Your task to perform on an android device: Go to Google maps Image 0: 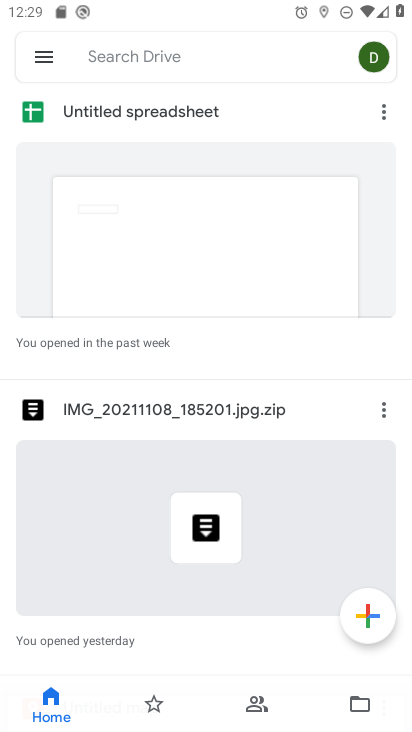
Step 0: press home button
Your task to perform on an android device: Go to Google maps Image 1: 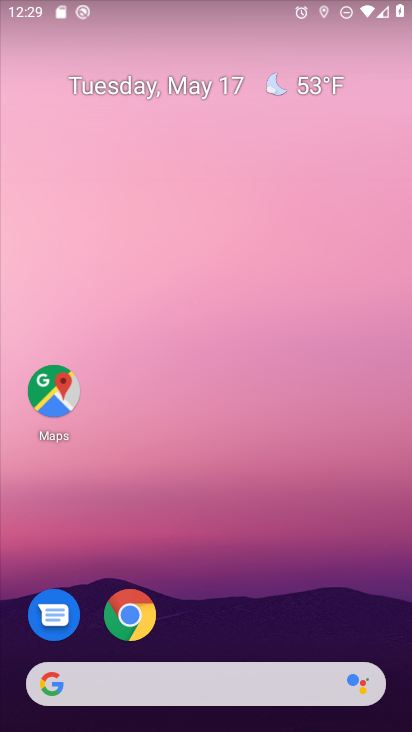
Step 1: click (60, 381)
Your task to perform on an android device: Go to Google maps Image 2: 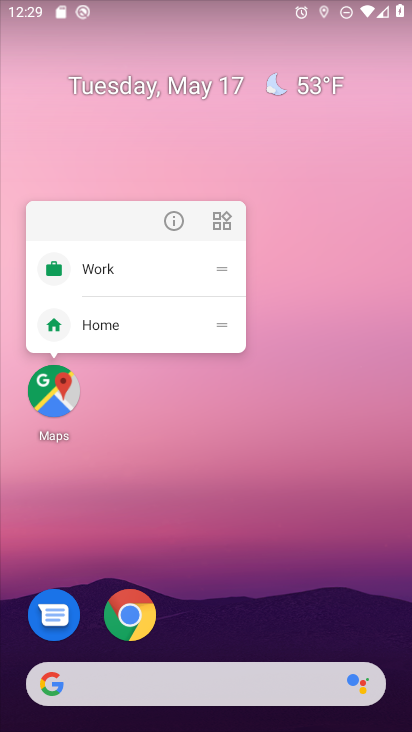
Step 2: click (76, 402)
Your task to perform on an android device: Go to Google maps Image 3: 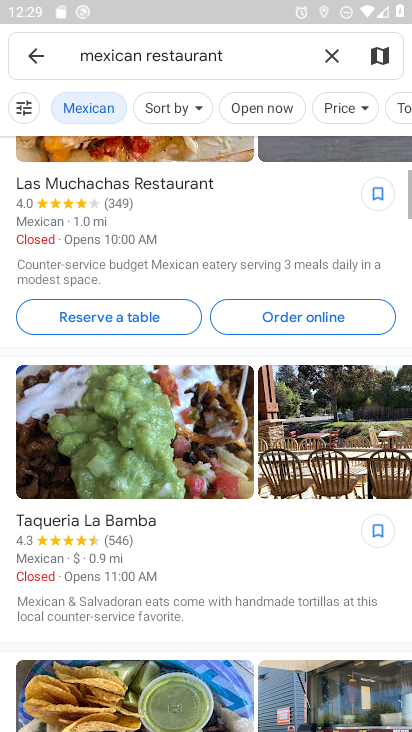
Step 3: click (325, 44)
Your task to perform on an android device: Go to Google maps Image 4: 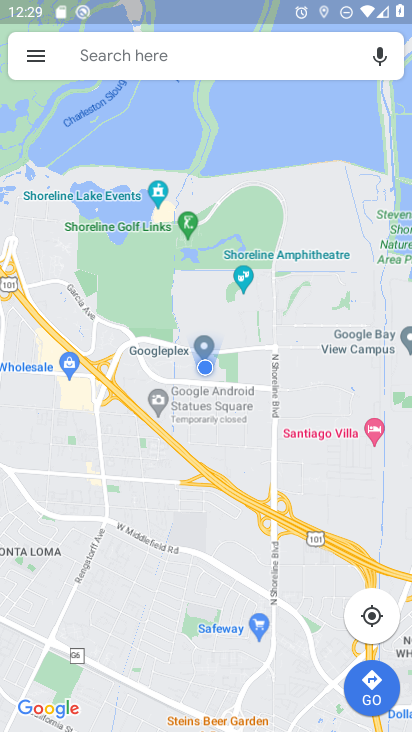
Step 4: task complete